Your task to perform on an android device: When is my next appointment? Image 0: 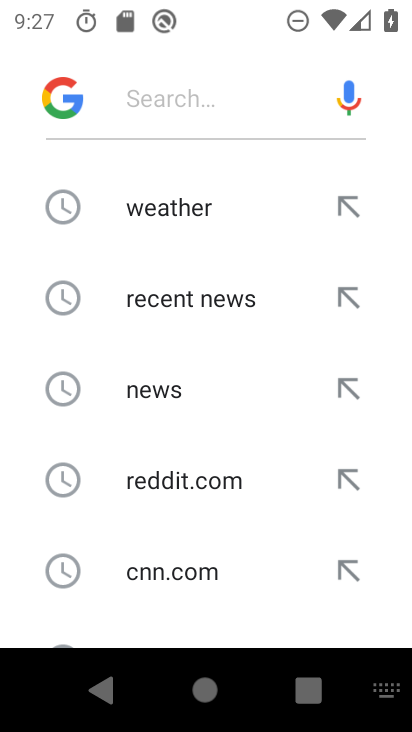
Step 0: press home button
Your task to perform on an android device: When is my next appointment? Image 1: 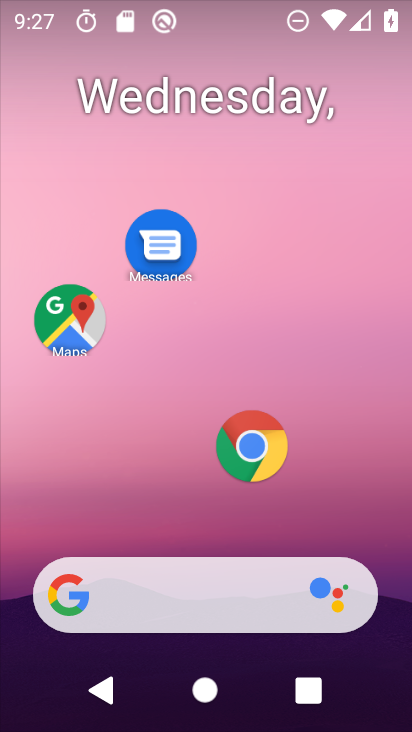
Step 1: drag from (199, 539) to (215, 109)
Your task to perform on an android device: When is my next appointment? Image 2: 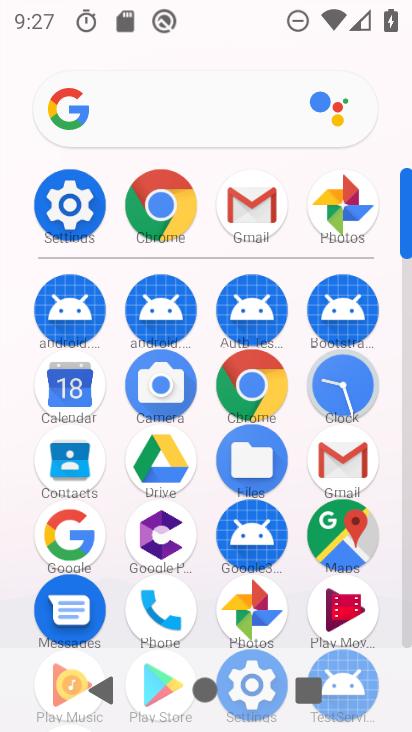
Step 2: click (73, 382)
Your task to perform on an android device: When is my next appointment? Image 3: 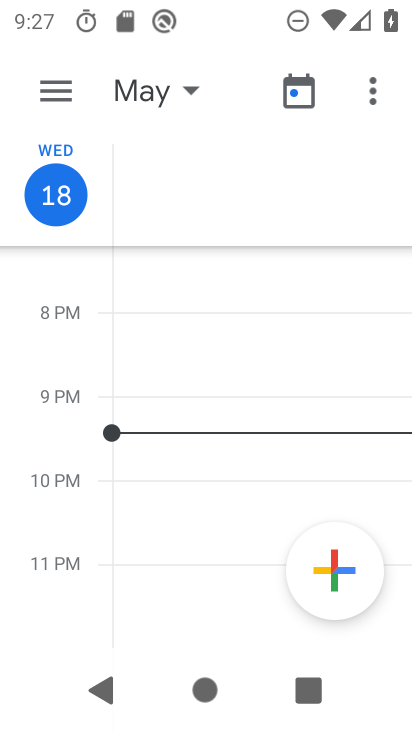
Step 3: click (89, 222)
Your task to perform on an android device: When is my next appointment? Image 4: 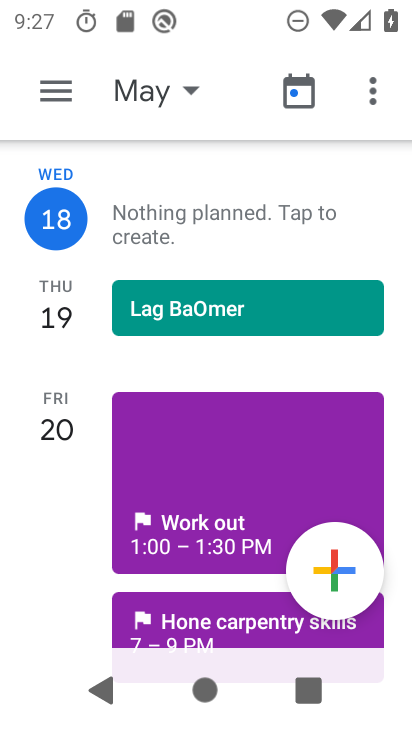
Step 4: task complete